Your task to perform on an android device: find which apps use the phone's location Image 0: 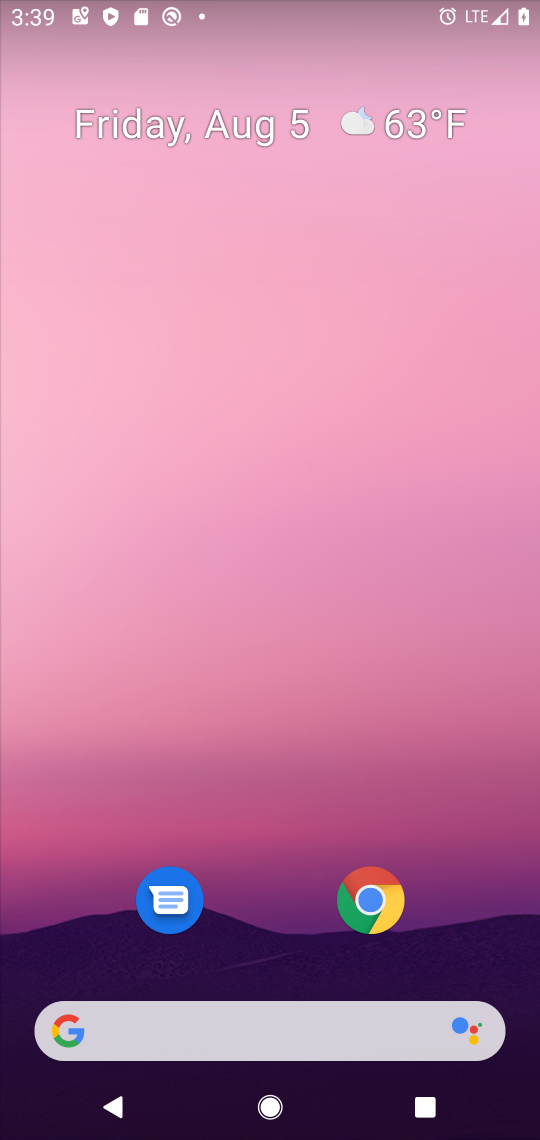
Step 0: drag from (233, 941) to (401, 0)
Your task to perform on an android device: find which apps use the phone's location Image 1: 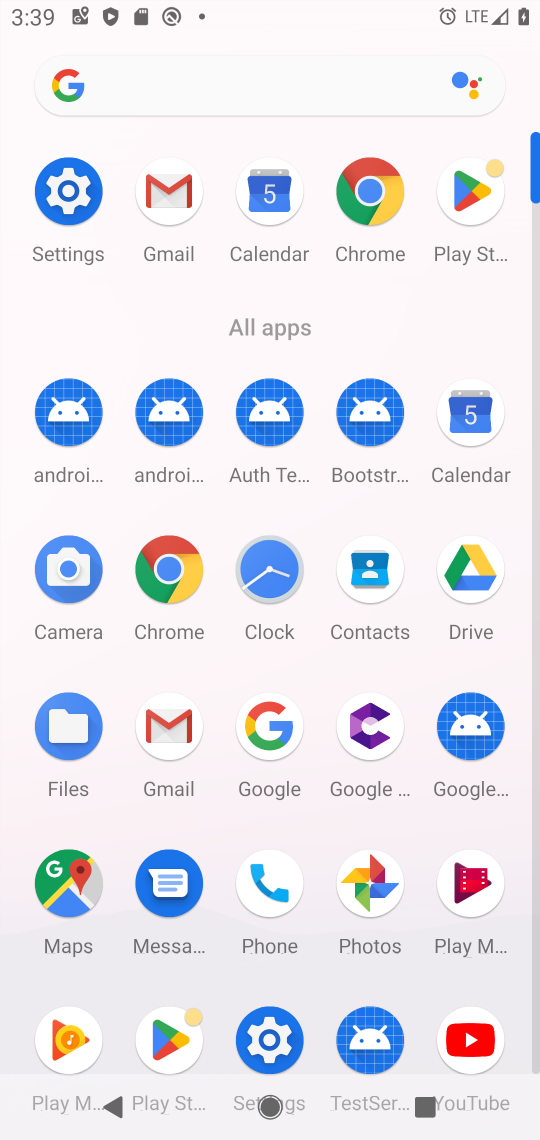
Step 1: click (70, 183)
Your task to perform on an android device: find which apps use the phone's location Image 2: 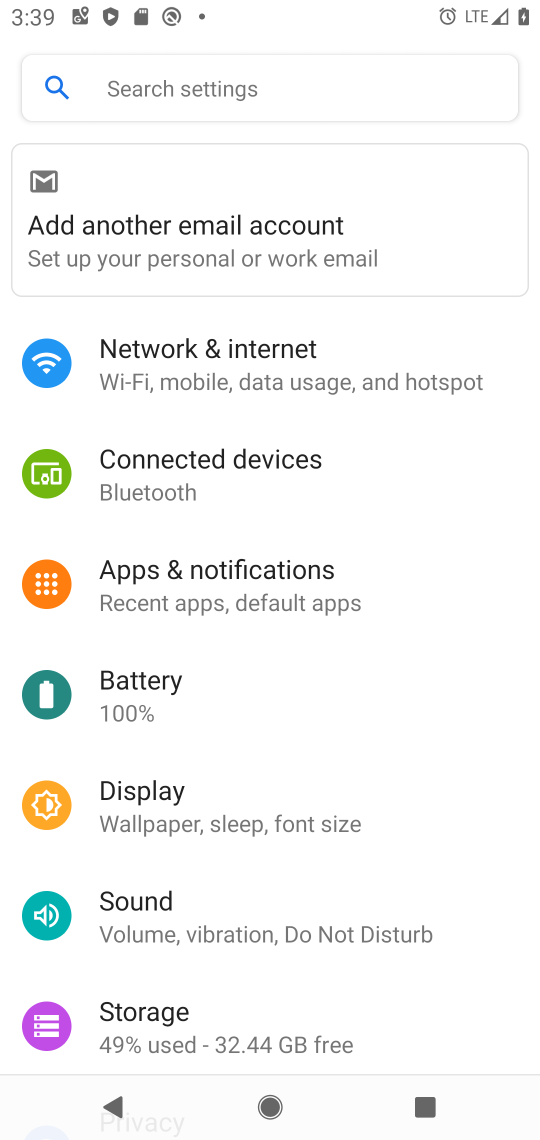
Step 2: drag from (198, 1026) to (404, 157)
Your task to perform on an android device: find which apps use the phone's location Image 3: 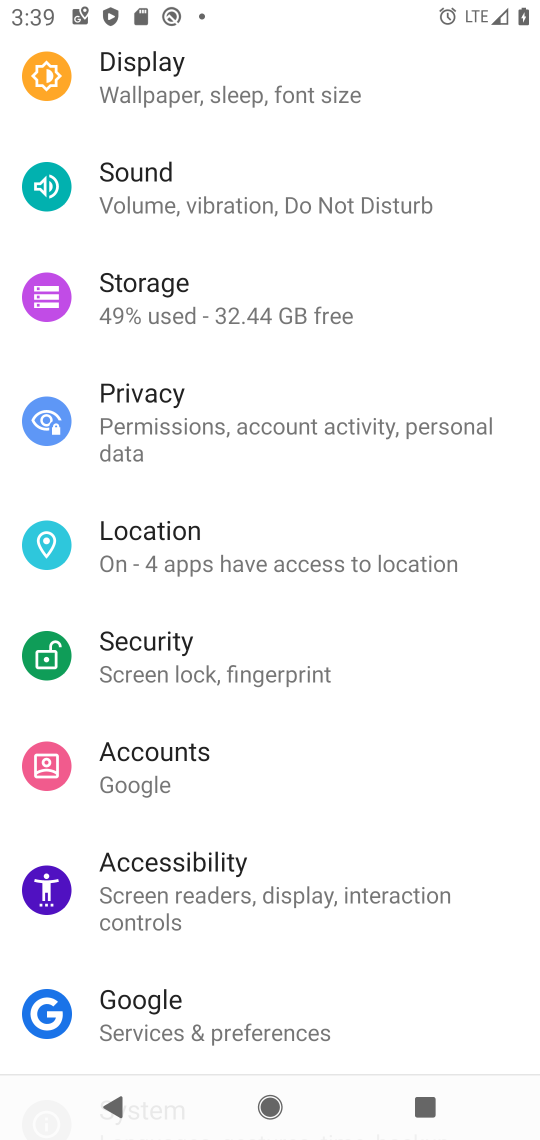
Step 3: click (186, 529)
Your task to perform on an android device: find which apps use the phone's location Image 4: 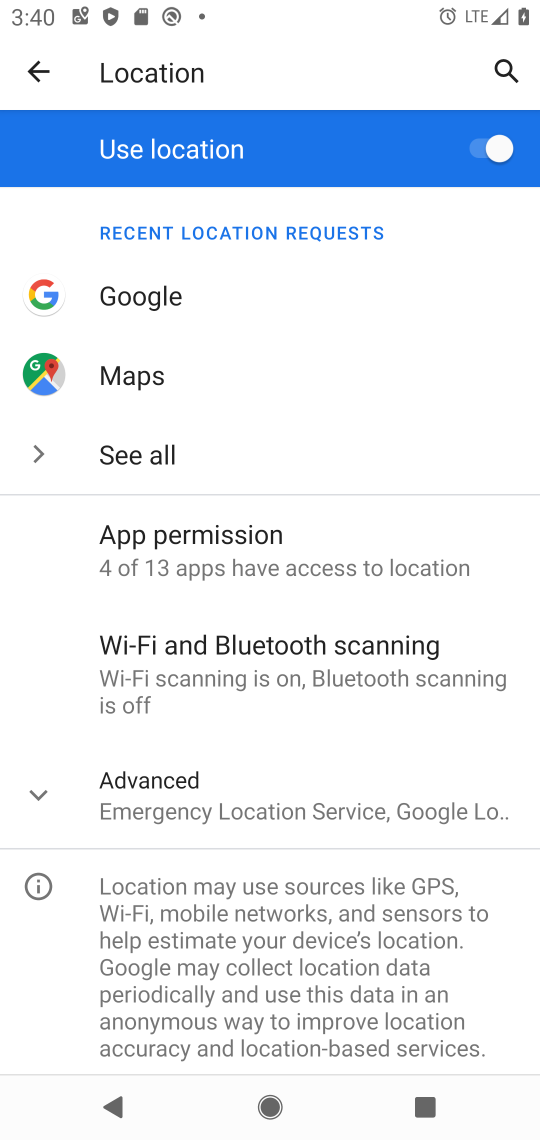
Step 4: click (202, 570)
Your task to perform on an android device: find which apps use the phone's location Image 5: 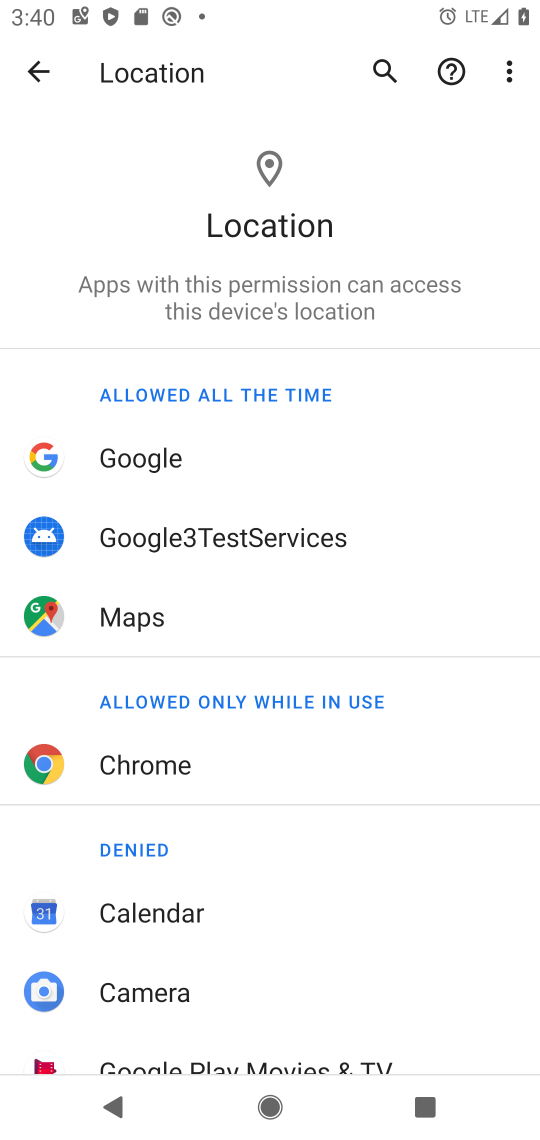
Step 5: task complete